Your task to perform on an android device: turn off notifications in google photos Image 0: 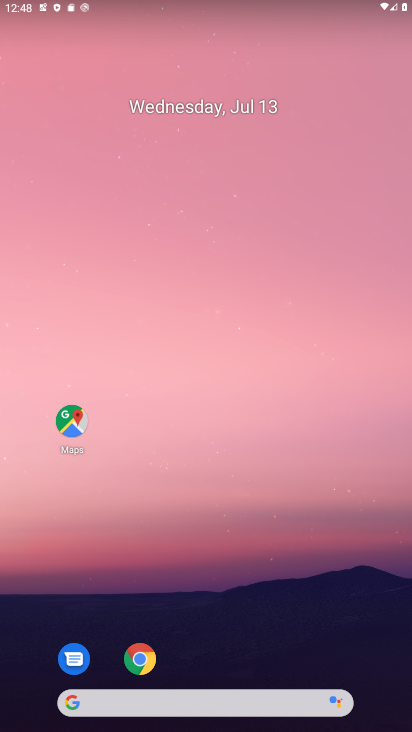
Step 0: click (240, 229)
Your task to perform on an android device: turn off notifications in google photos Image 1: 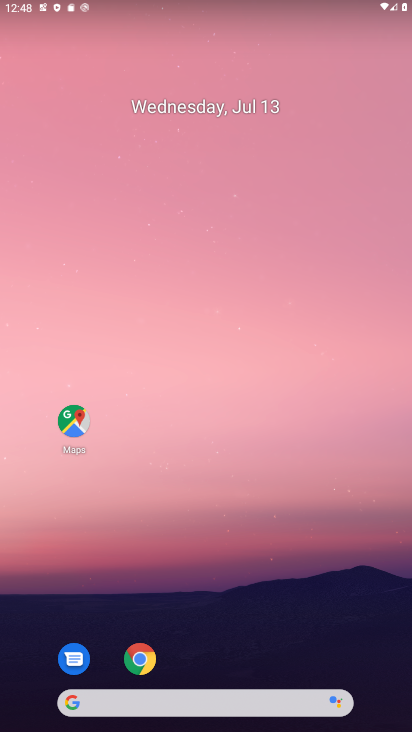
Step 1: drag from (186, 660) to (267, 134)
Your task to perform on an android device: turn off notifications in google photos Image 2: 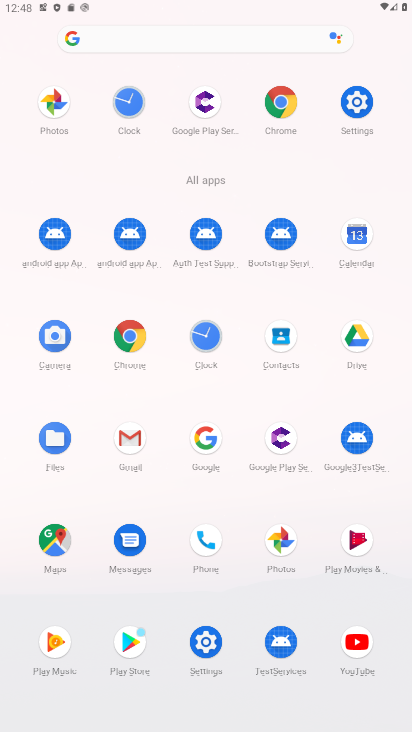
Step 2: click (284, 538)
Your task to perform on an android device: turn off notifications in google photos Image 3: 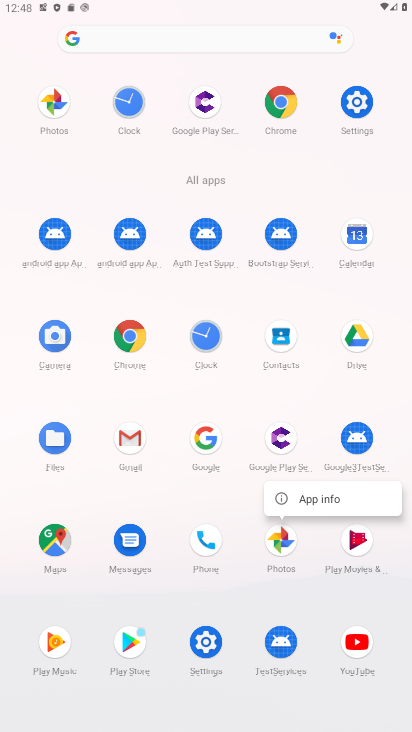
Step 3: click (298, 501)
Your task to perform on an android device: turn off notifications in google photos Image 4: 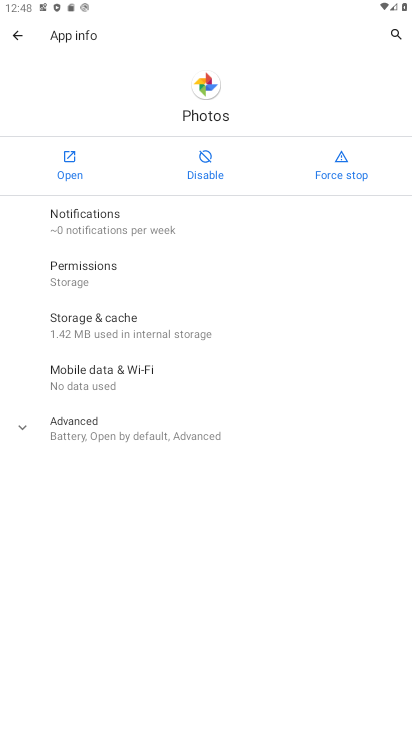
Step 4: click (69, 164)
Your task to perform on an android device: turn off notifications in google photos Image 5: 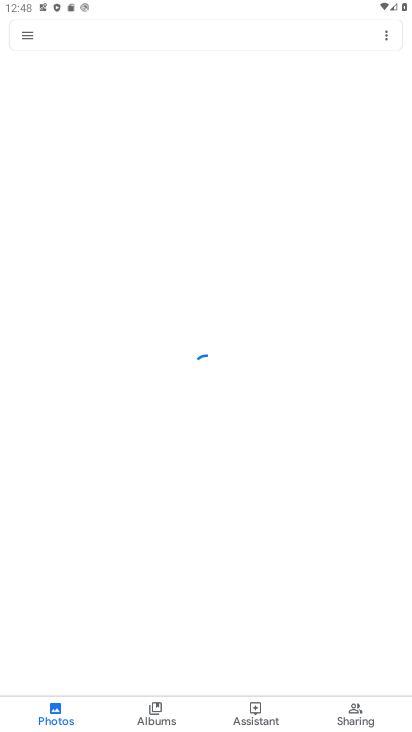
Step 5: drag from (238, 461) to (238, 212)
Your task to perform on an android device: turn off notifications in google photos Image 6: 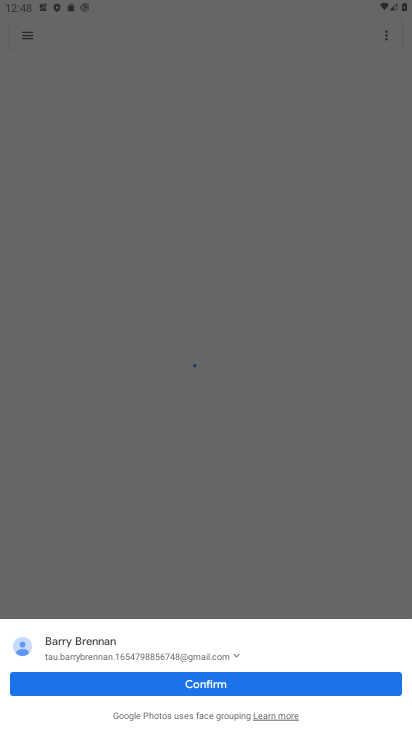
Step 6: drag from (270, 408) to (268, 64)
Your task to perform on an android device: turn off notifications in google photos Image 7: 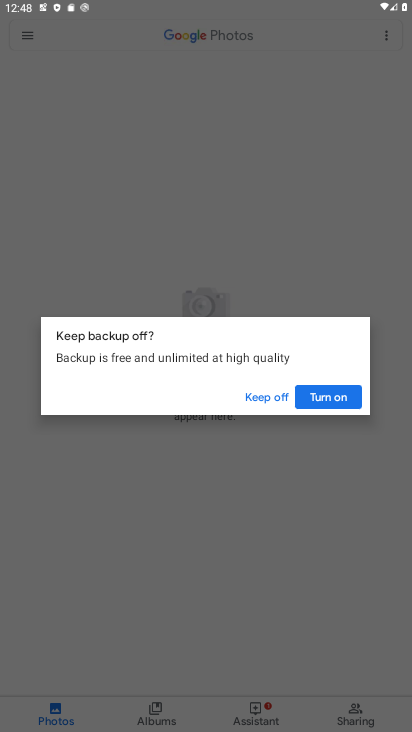
Step 7: click (250, 383)
Your task to perform on an android device: turn off notifications in google photos Image 8: 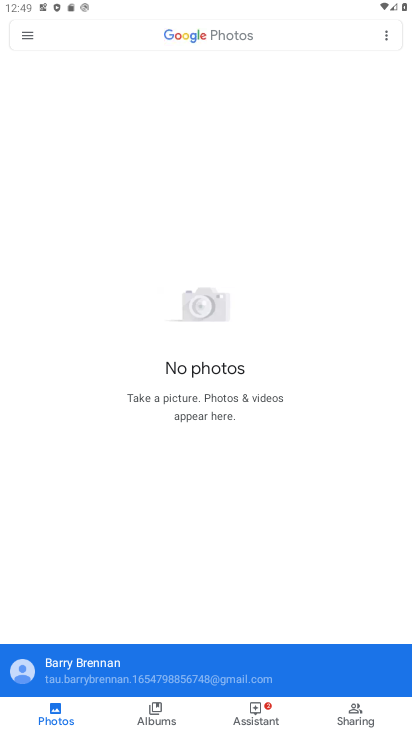
Step 8: drag from (199, 510) to (197, 272)
Your task to perform on an android device: turn off notifications in google photos Image 9: 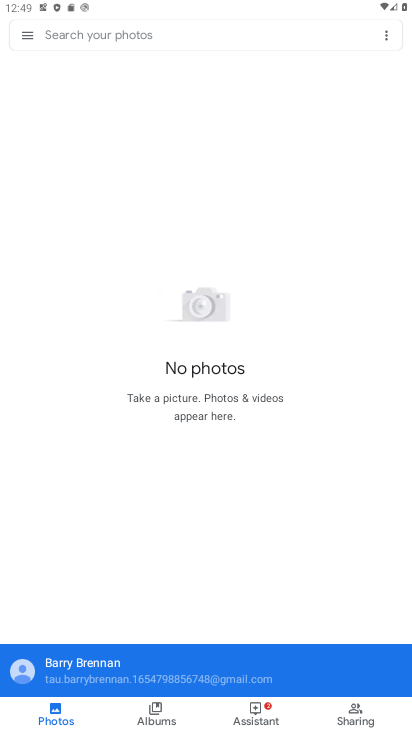
Step 9: drag from (135, 525) to (182, 297)
Your task to perform on an android device: turn off notifications in google photos Image 10: 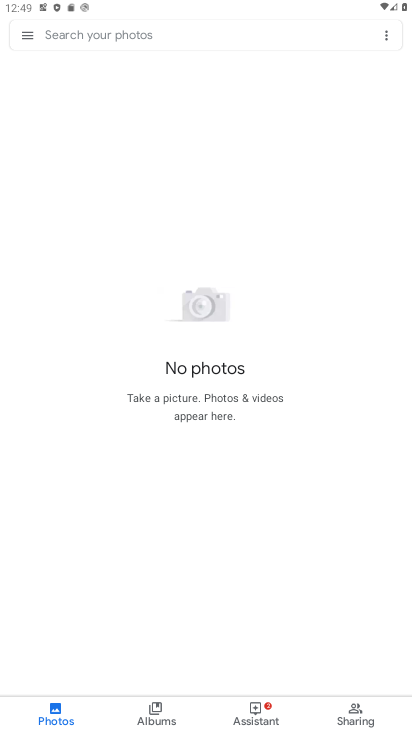
Step 10: drag from (267, 550) to (265, 271)
Your task to perform on an android device: turn off notifications in google photos Image 11: 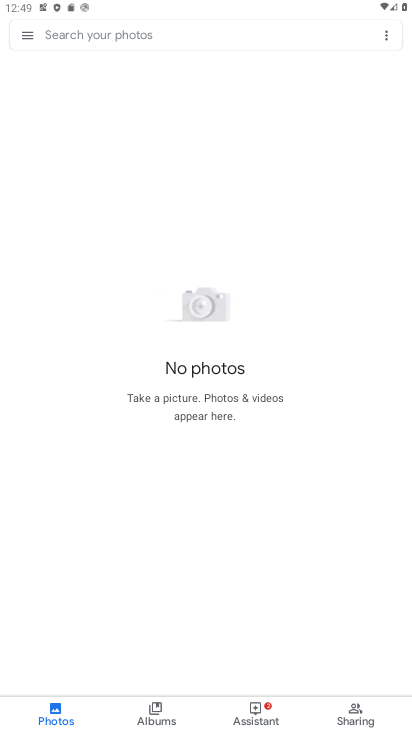
Step 11: drag from (221, 504) to (291, 237)
Your task to perform on an android device: turn off notifications in google photos Image 12: 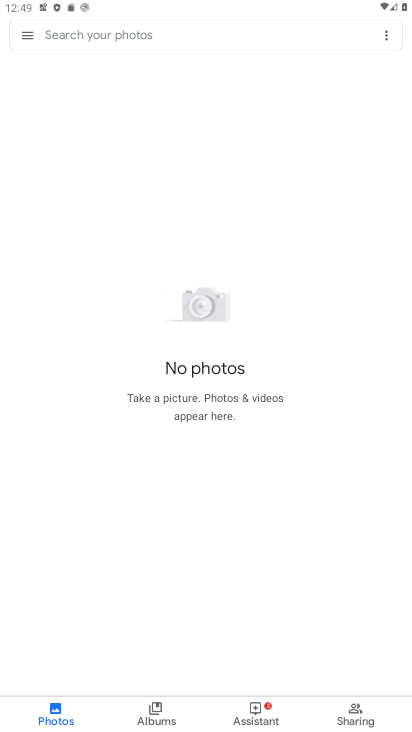
Step 12: click (21, 35)
Your task to perform on an android device: turn off notifications in google photos Image 13: 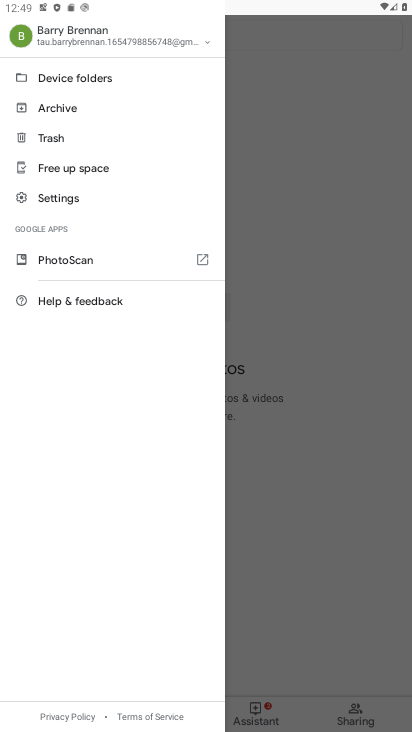
Step 13: click (71, 204)
Your task to perform on an android device: turn off notifications in google photos Image 14: 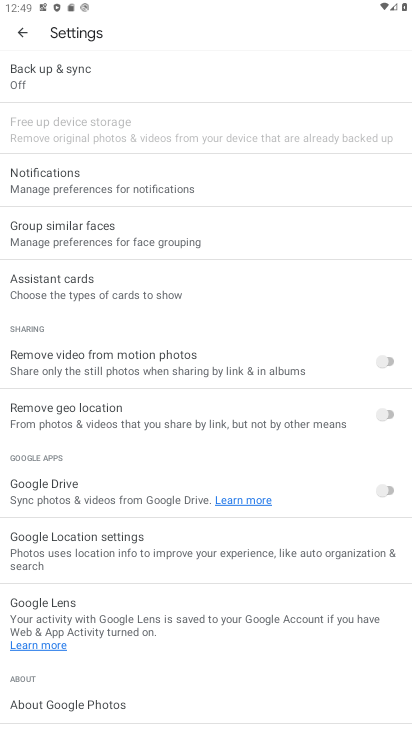
Step 14: drag from (159, 436) to (188, 153)
Your task to perform on an android device: turn off notifications in google photos Image 15: 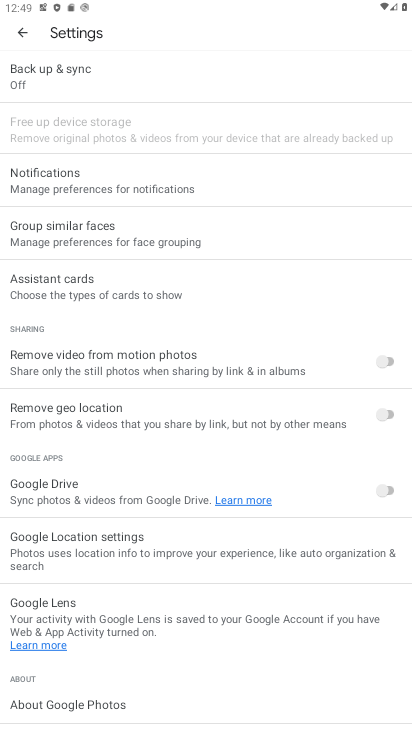
Step 15: drag from (111, 593) to (148, 364)
Your task to perform on an android device: turn off notifications in google photos Image 16: 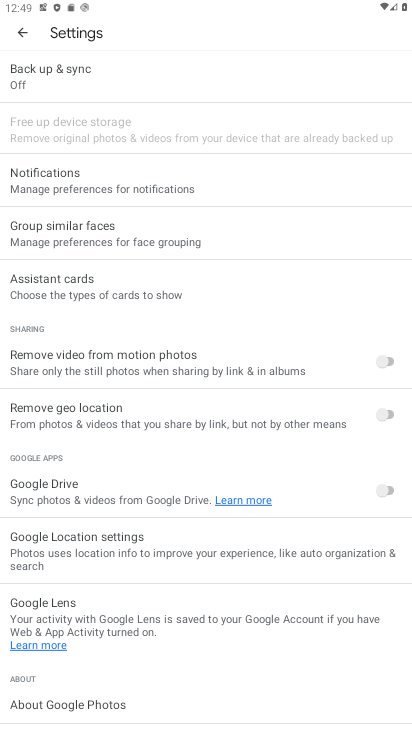
Step 16: drag from (125, 623) to (226, 179)
Your task to perform on an android device: turn off notifications in google photos Image 17: 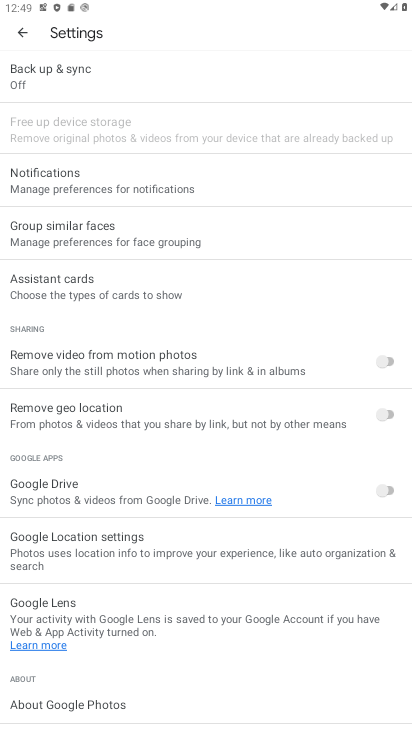
Step 17: click (140, 177)
Your task to perform on an android device: turn off notifications in google photos Image 18: 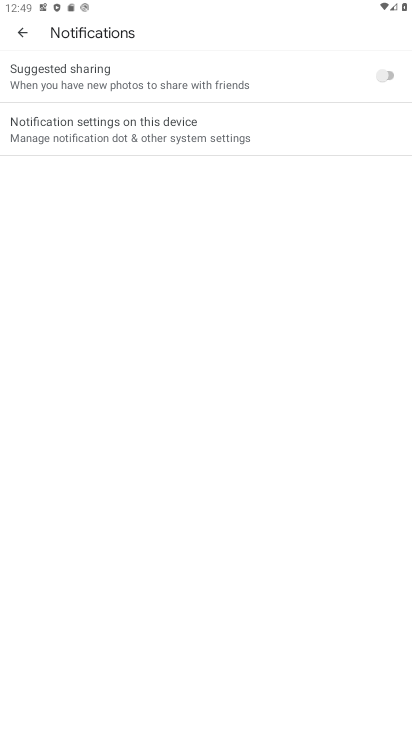
Step 18: click (155, 146)
Your task to perform on an android device: turn off notifications in google photos Image 19: 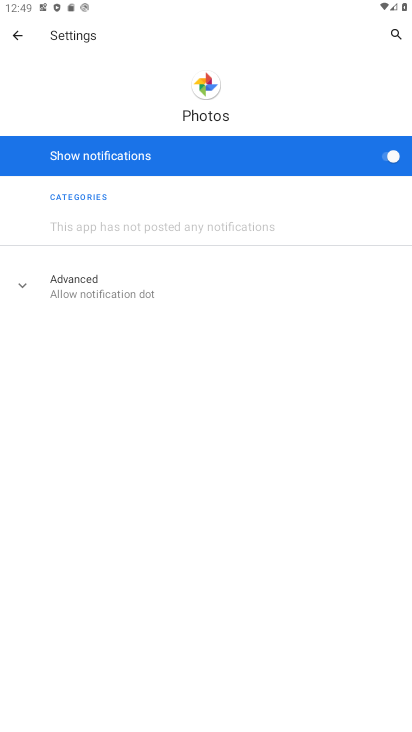
Step 19: drag from (344, 445) to (363, 203)
Your task to perform on an android device: turn off notifications in google photos Image 20: 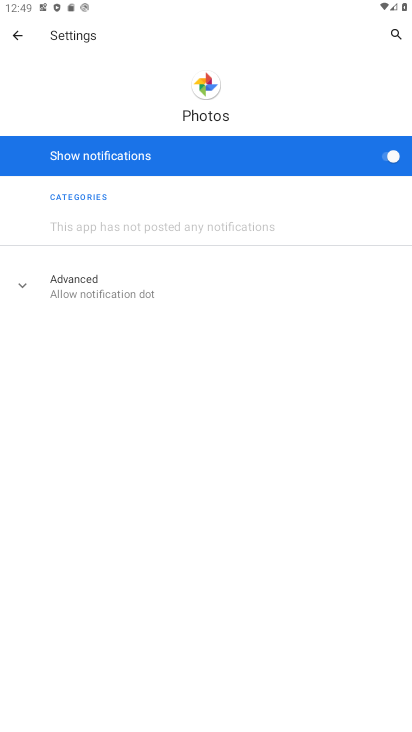
Step 20: click (389, 157)
Your task to perform on an android device: turn off notifications in google photos Image 21: 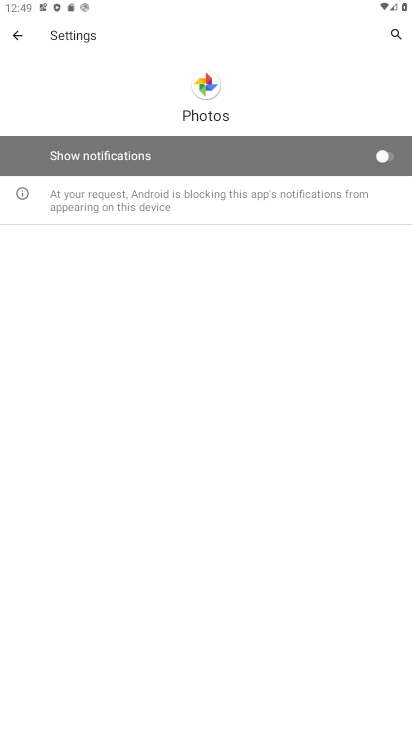
Step 21: task complete